Your task to perform on an android device: toggle airplane mode Image 0: 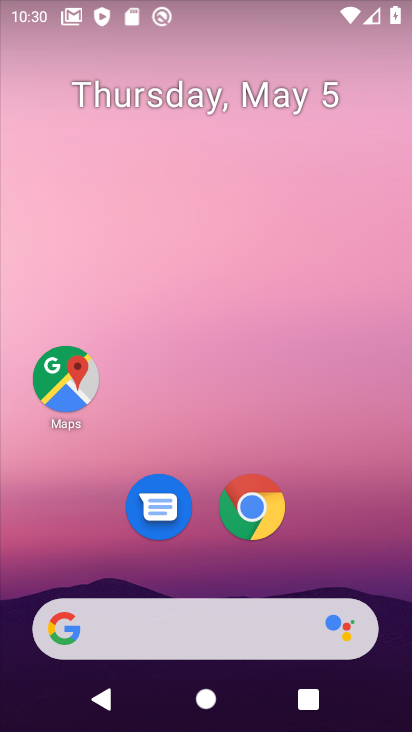
Step 0: drag from (373, 550) to (285, 3)
Your task to perform on an android device: toggle airplane mode Image 1: 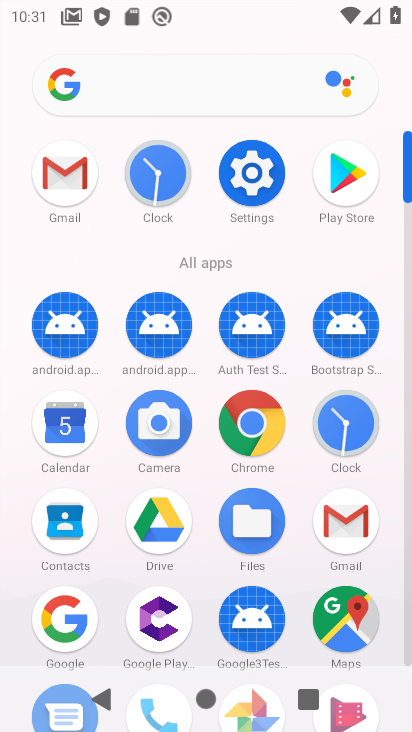
Step 1: click (246, 176)
Your task to perform on an android device: toggle airplane mode Image 2: 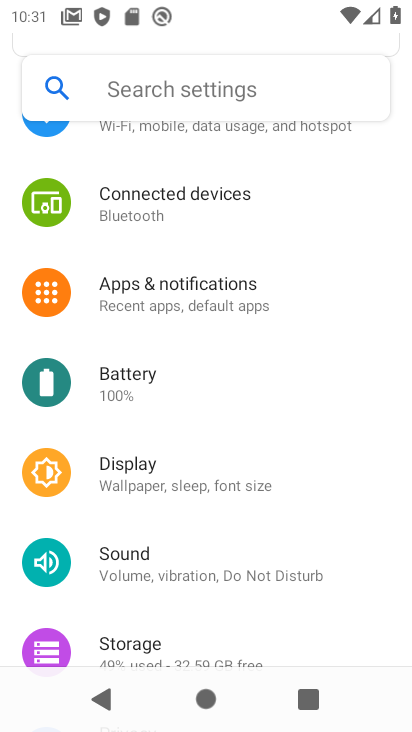
Step 2: drag from (320, 244) to (322, 460)
Your task to perform on an android device: toggle airplane mode Image 3: 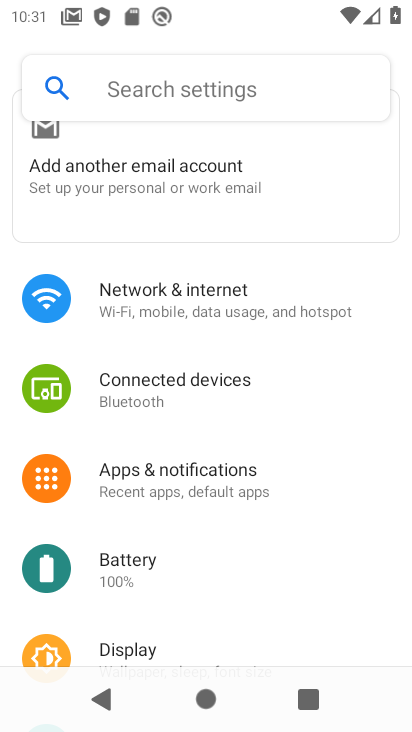
Step 3: click (156, 316)
Your task to perform on an android device: toggle airplane mode Image 4: 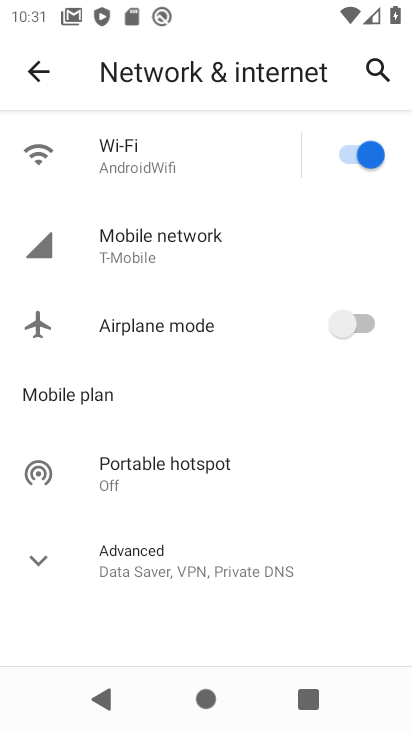
Step 4: click (334, 329)
Your task to perform on an android device: toggle airplane mode Image 5: 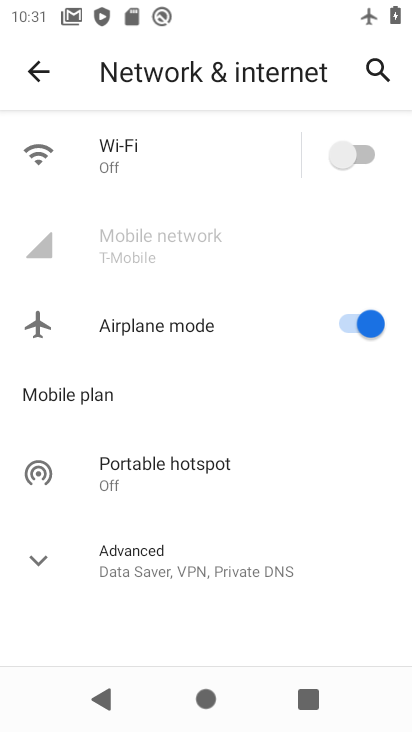
Step 5: task complete